Your task to perform on an android device: Open a new Chrome private window Image 0: 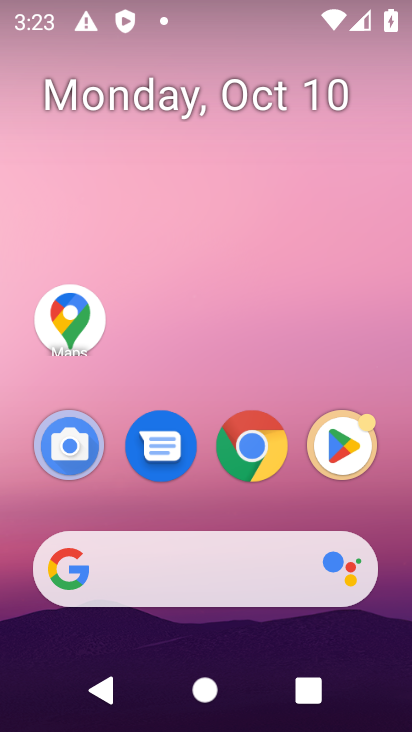
Step 0: click (226, 422)
Your task to perform on an android device: Open a new Chrome private window Image 1: 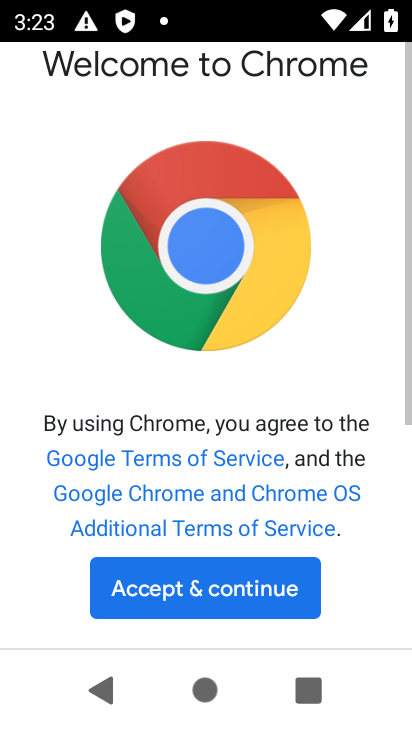
Step 1: click (228, 563)
Your task to perform on an android device: Open a new Chrome private window Image 2: 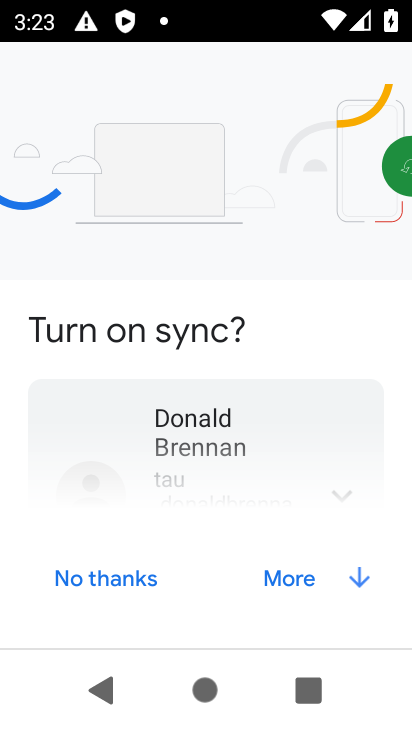
Step 2: click (140, 577)
Your task to perform on an android device: Open a new Chrome private window Image 3: 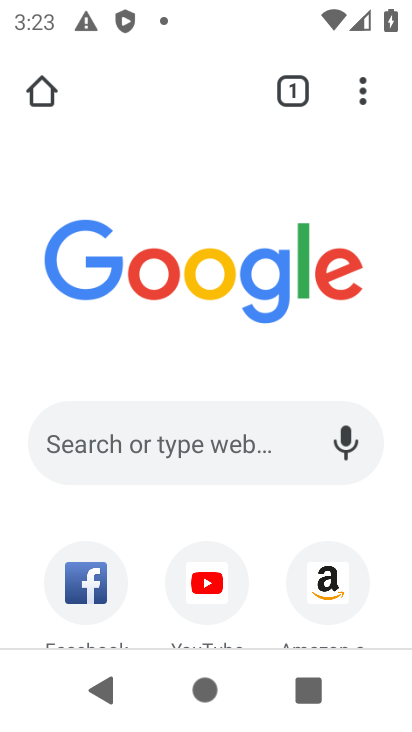
Step 3: click (306, 87)
Your task to perform on an android device: Open a new Chrome private window Image 4: 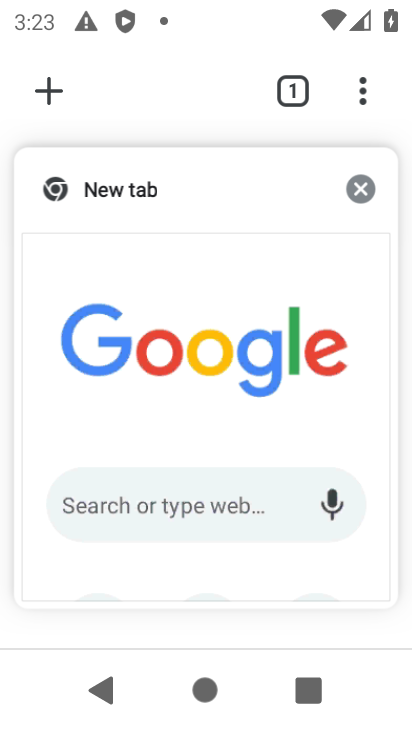
Step 4: click (54, 84)
Your task to perform on an android device: Open a new Chrome private window Image 5: 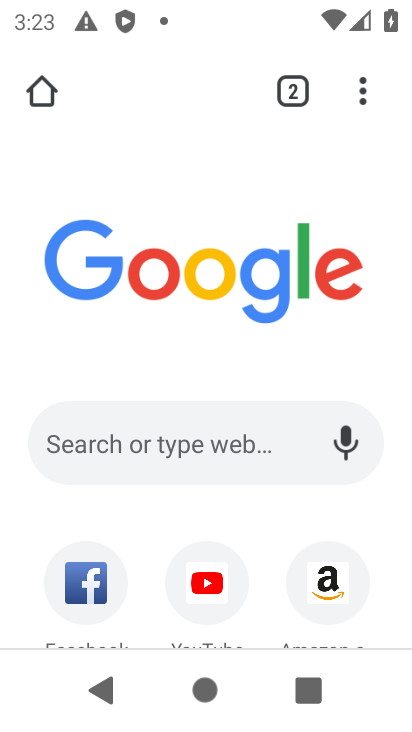
Step 5: task complete